Your task to perform on an android device: Show me recent news Image 0: 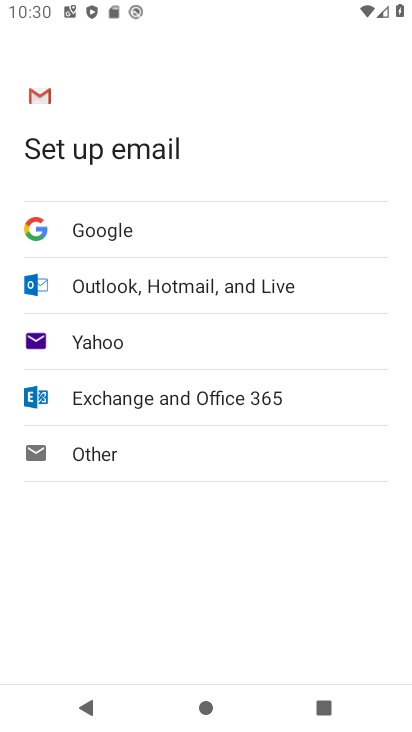
Step 0: press home button
Your task to perform on an android device: Show me recent news Image 1: 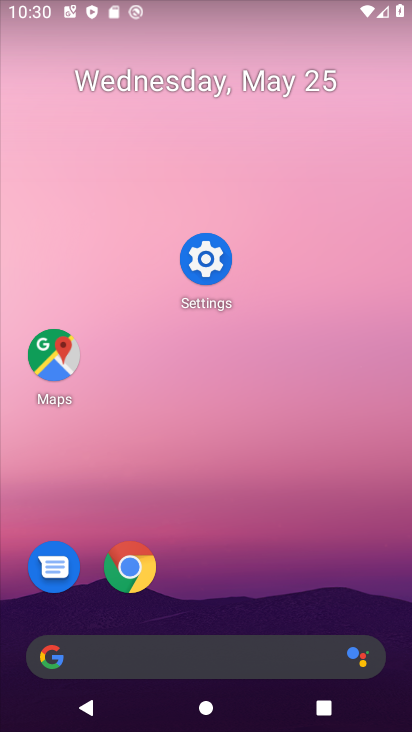
Step 1: drag from (267, 581) to (251, 1)
Your task to perform on an android device: Show me recent news Image 2: 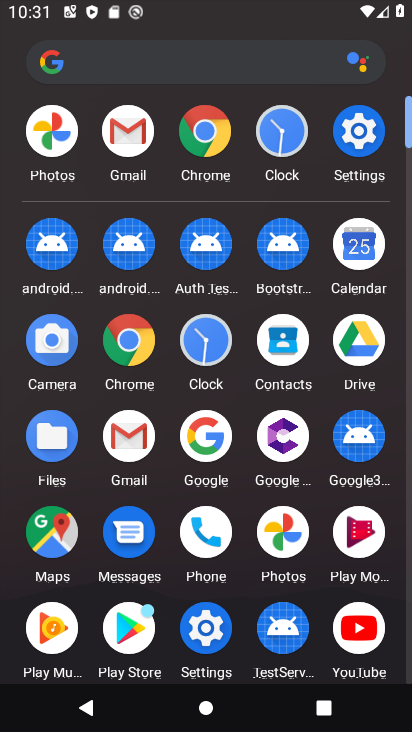
Step 2: click (280, 538)
Your task to perform on an android device: Show me recent news Image 3: 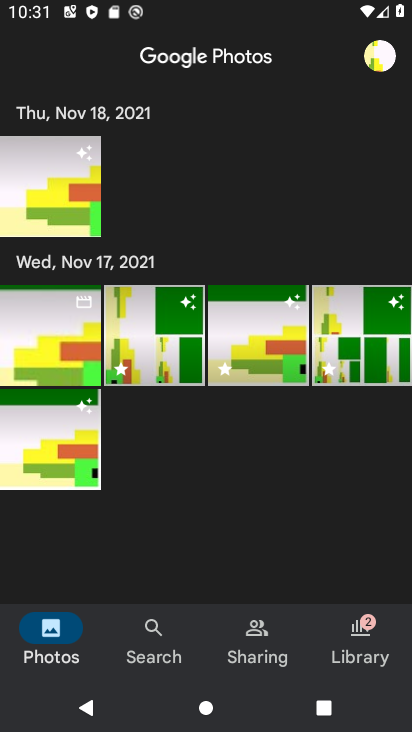
Step 3: click (371, 652)
Your task to perform on an android device: Show me recent news Image 4: 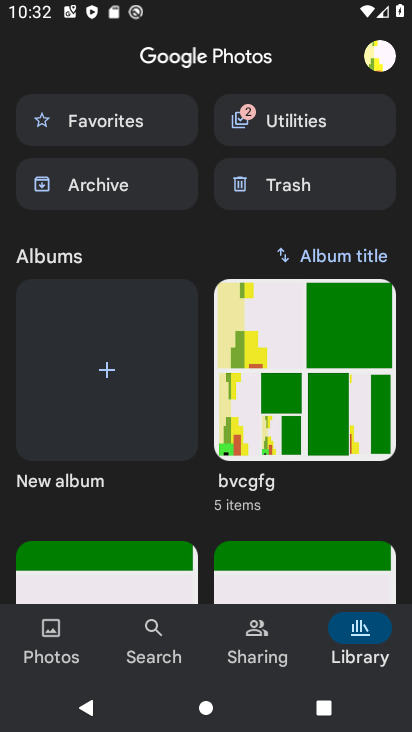
Step 4: task complete